Your task to perform on an android device: check out phone information Image 0: 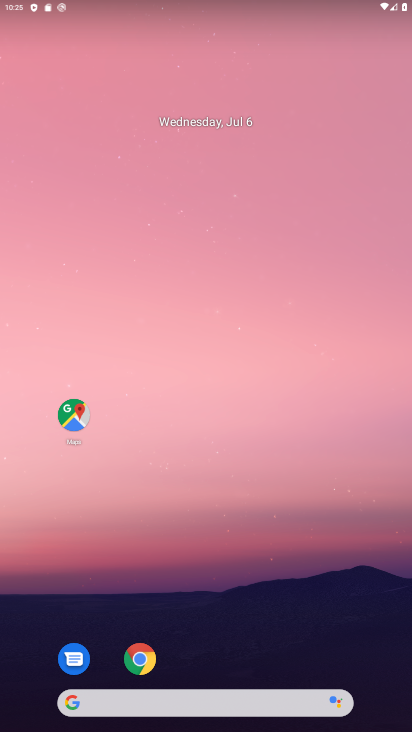
Step 0: drag from (225, 585) to (210, 70)
Your task to perform on an android device: check out phone information Image 1: 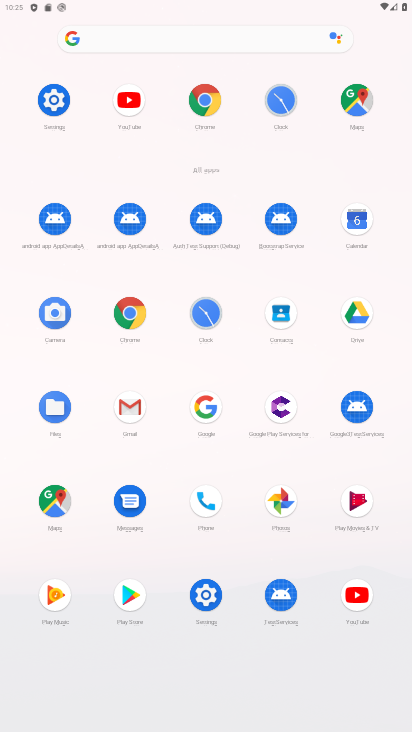
Step 1: click (57, 106)
Your task to perform on an android device: check out phone information Image 2: 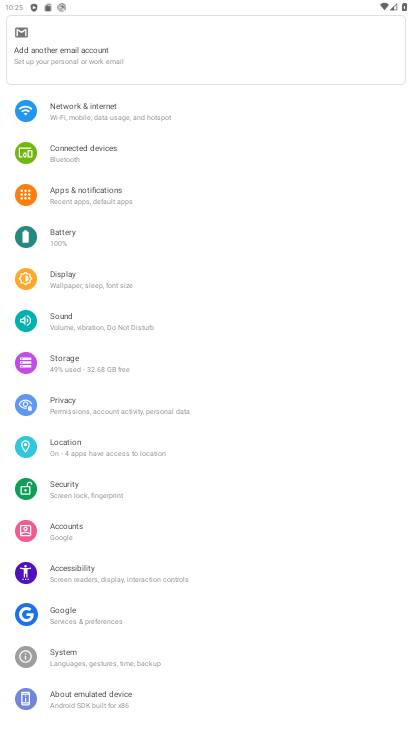
Step 2: drag from (118, 655) to (200, 43)
Your task to perform on an android device: check out phone information Image 3: 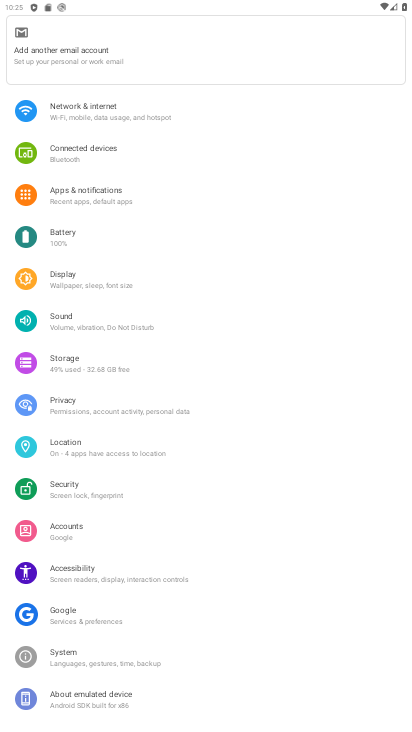
Step 3: click (107, 701)
Your task to perform on an android device: check out phone information Image 4: 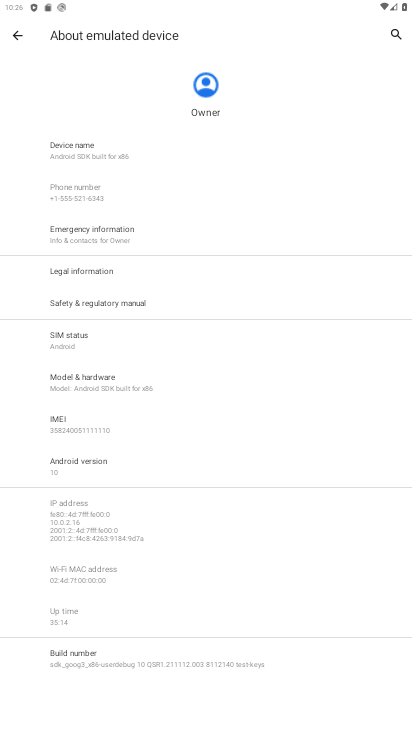
Step 4: task complete